Your task to perform on an android device: set default search engine in the chrome app Image 0: 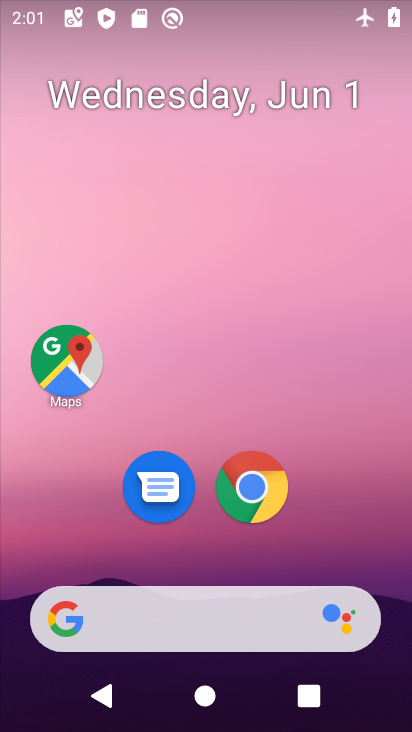
Step 0: drag from (353, 547) to (375, 116)
Your task to perform on an android device: set default search engine in the chrome app Image 1: 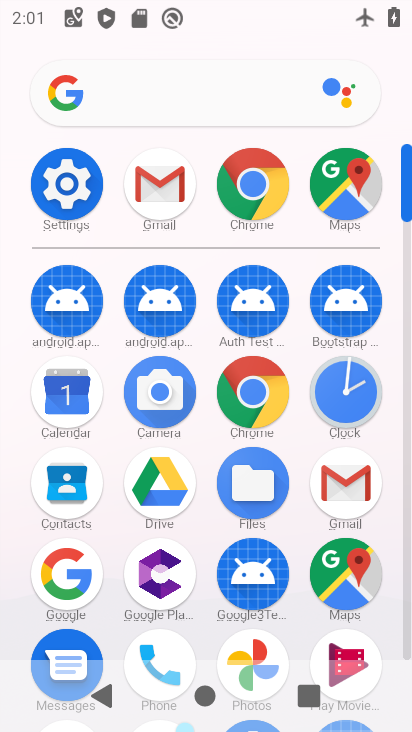
Step 1: click (264, 421)
Your task to perform on an android device: set default search engine in the chrome app Image 2: 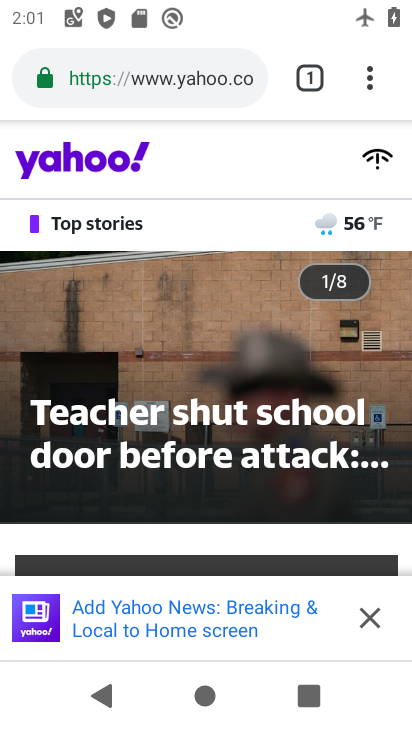
Step 2: click (370, 93)
Your task to perform on an android device: set default search engine in the chrome app Image 3: 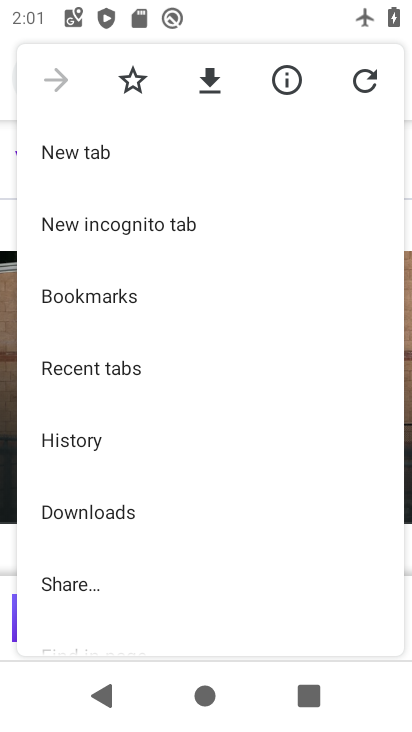
Step 3: drag from (208, 466) to (228, 301)
Your task to perform on an android device: set default search engine in the chrome app Image 4: 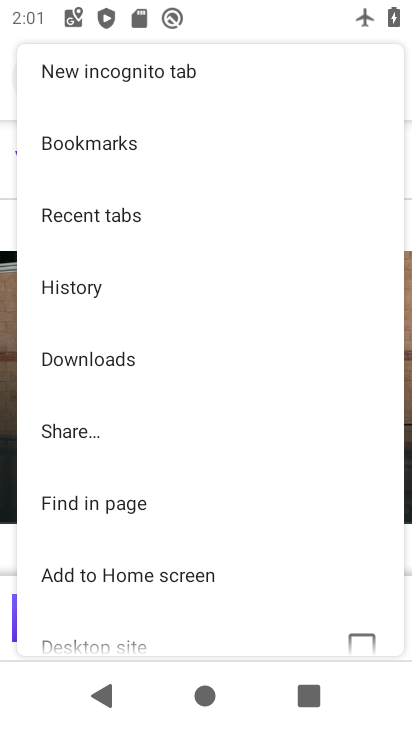
Step 4: drag from (186, 469) to (203, 357)
Your task to perform on an android device: set default search engine in the chrome app Image 5: 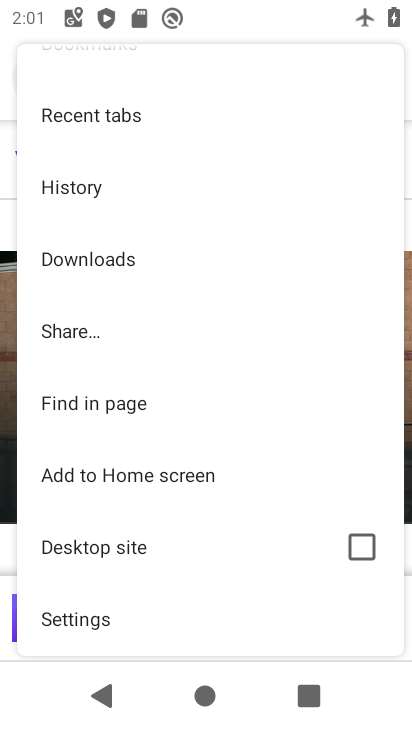
Step 5: drag from (190, 526) to (209, 381)
Your task to perform on an android device: set default search engine in the chrome app Image 6: 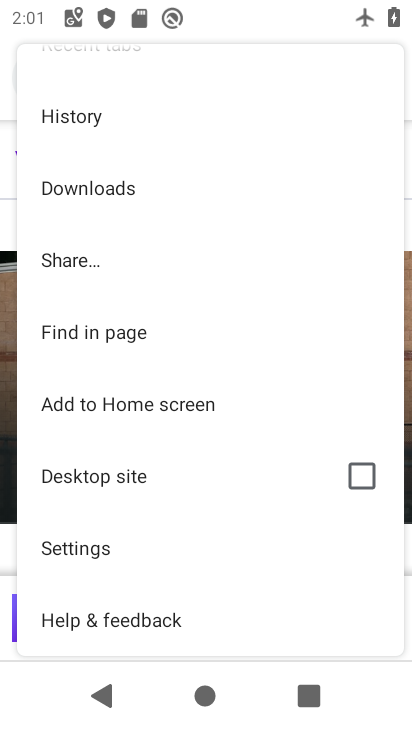
Step 6: click (152, 557)
Your task to perform on an android device: set default search engine in the chrome app Image 7: 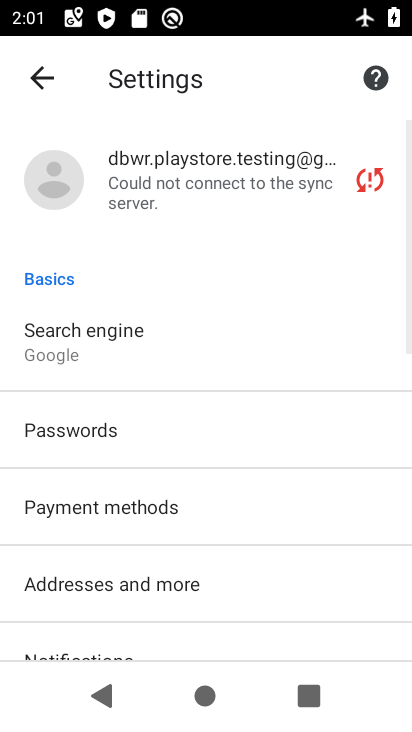
Step 7: drag from (185, 563) to (197, 475)
Your task to perform on an android device: set default search engine in the chrome app Image 8: 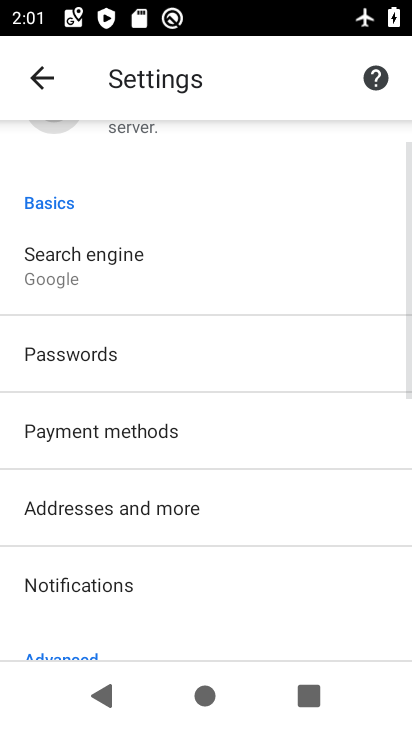
Step 8: drag from (226, 565) to (232, 415)
Your task to perform on an android device: set default search engine in the chrome app Image 9: 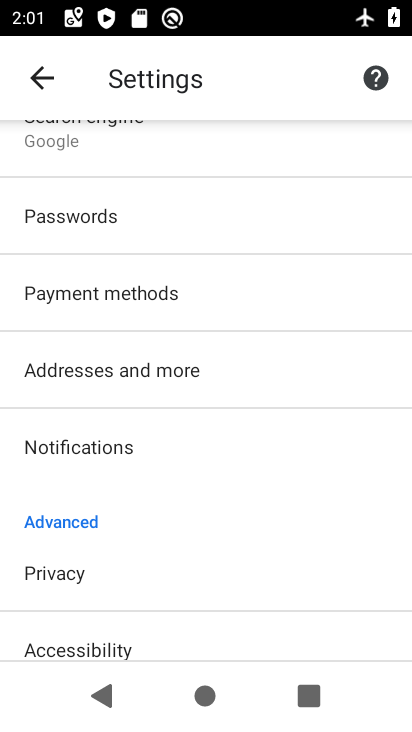
Step 9: drag from (236, 448) to (236, 354)
Your task to perform on an android device: set default search engine in the chrome app Image 10: 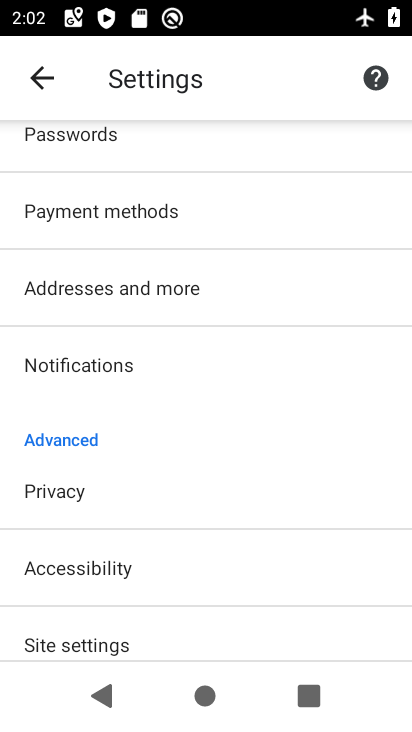
Step 10: drag from (237, 515) to (241, 365)
Your task to perform on an android device: set default search engine in the chrome app Image 11: 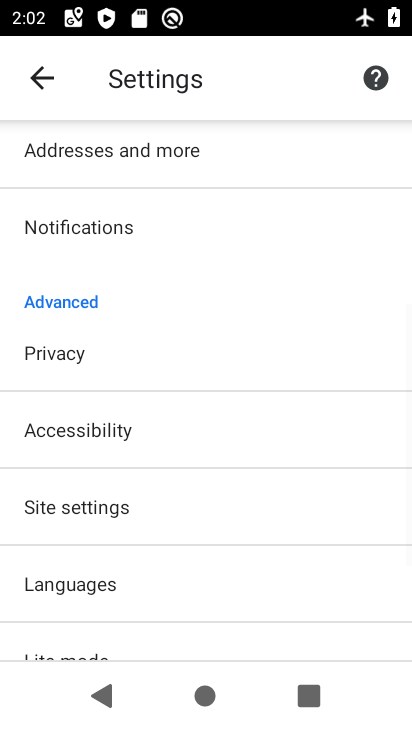
Step 11: drag from (234, 524) to (241, 399)
Your task to perform on an android device: set default search engine in the chrome app Image 12: 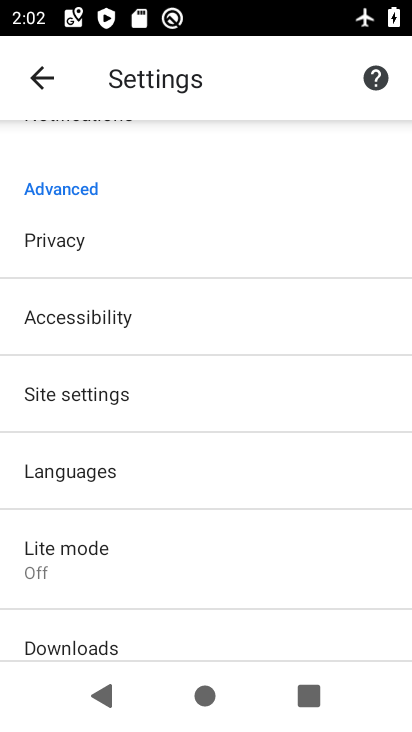
Step 12: drag from (229, 542) to (228, 415)
Your task to perform on an android device: set default search engine in the chrome app Image 13: 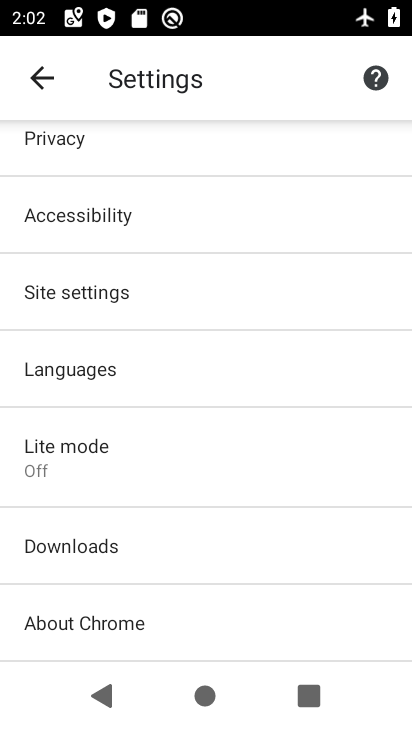
Step 13: drag from (240, 545) to (244, 375)
Your task to perform on an android device: set default search engine in the chrome app Image 14: 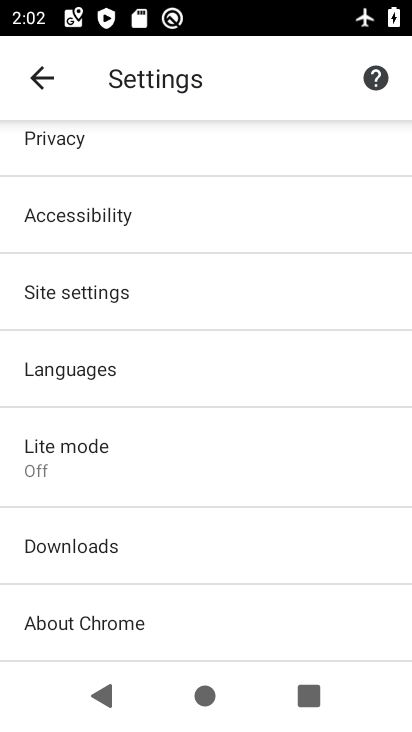
Step 14: drag from (242, 251) to (242, 431)
Your task to perform on an android device: set default search engine in the chrome app Image 15: 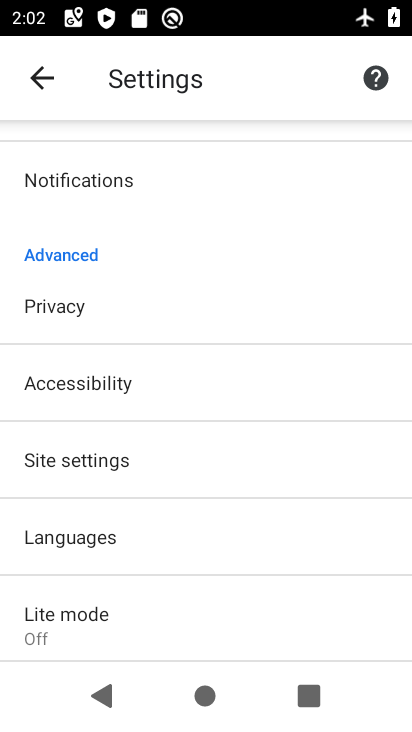
Step 15: drag from (243, 279) to (246, 390)
Your task to perform on an android device: set default search engine in the chrome app Image 16: 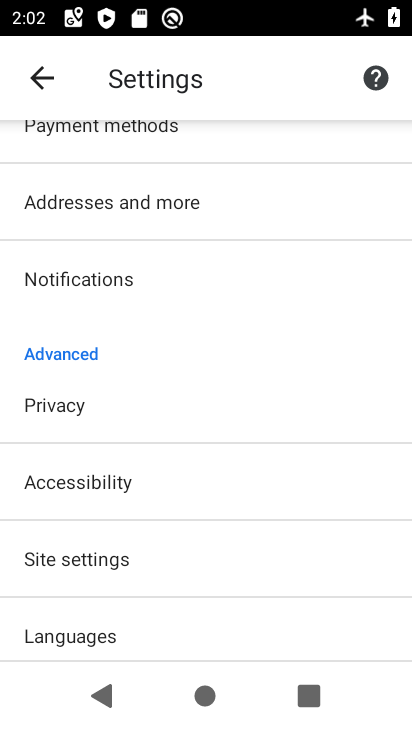
Step 16: drag from (245, 297) to (248, 382)
Your task to perform on an android device: set default search engine in the chrome app Image 17: 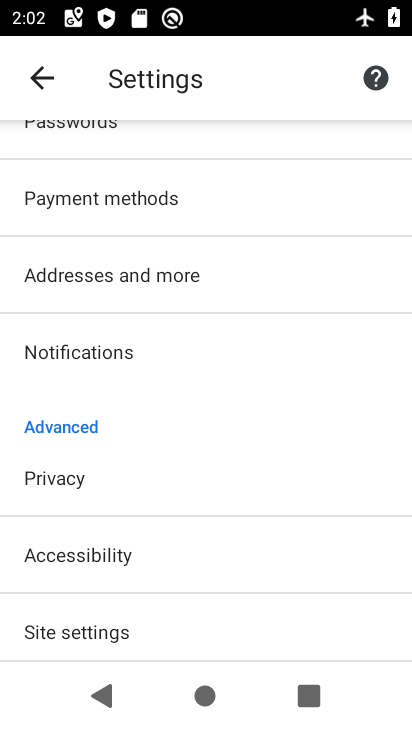
Step 17: drag from (259, 301) to (263, 384)
Your task to perform on an android device: set default search engine in the chrome app Image 18: 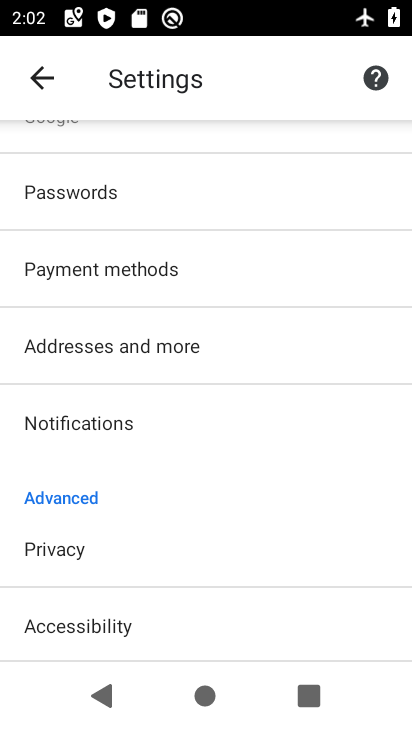
Step 18: click (266, 286)
Your task to perform on an android device: set default search engine in the chrome app Image 19: 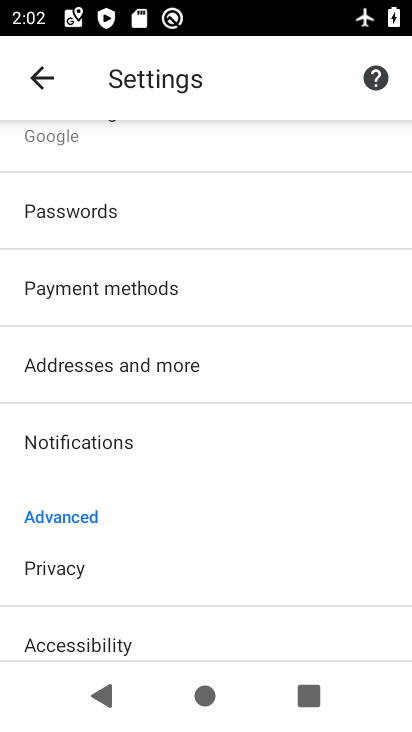
Step 19: drag from (266, 299) to (265, 361)
Your task to perform on an android device: set default search engine in the chrome app Image 20: 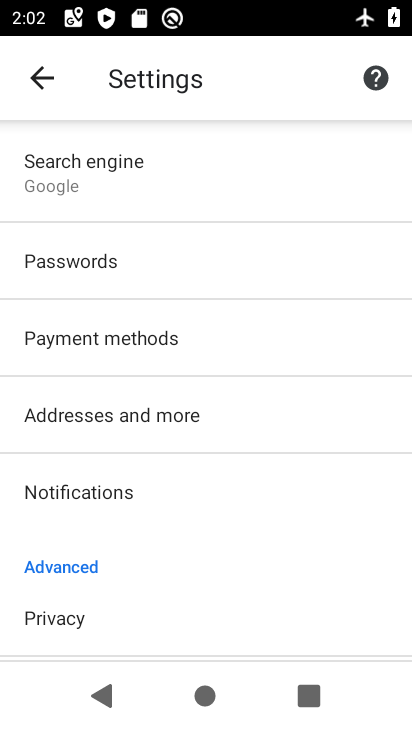
Step 20: drag from (259, 286) to (254, 399)
Your task to perform on an android device: set default search engine in the chrome app Image 21: 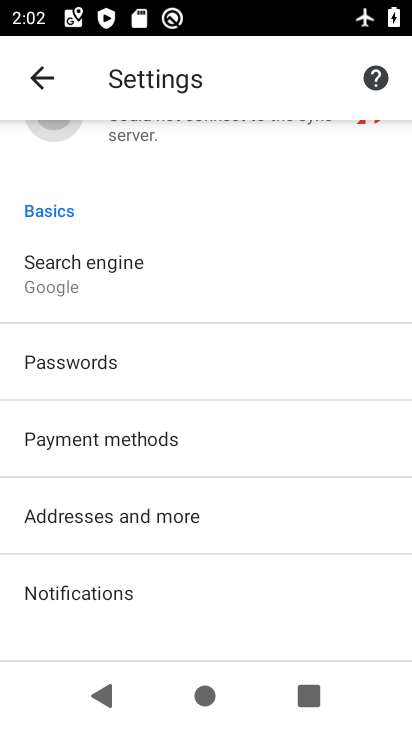
Step 21: click (117, 298)
Your task to perform on an android device: set default search engine in the chrome app Image 22: 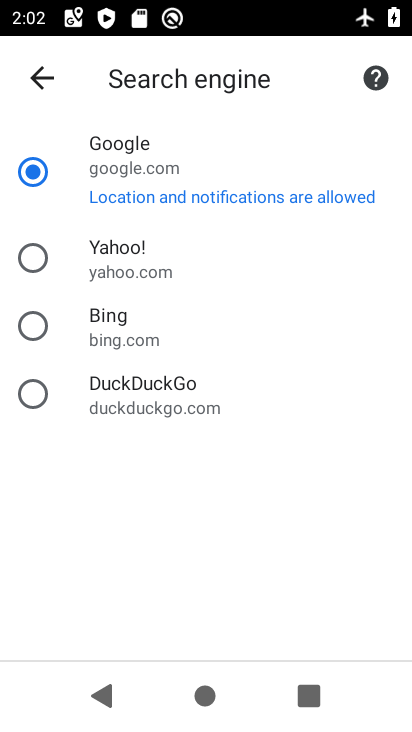
Step 22: click (129, 322)
Your task to perform on an android device: set default search engine in the chrome app Image 23: 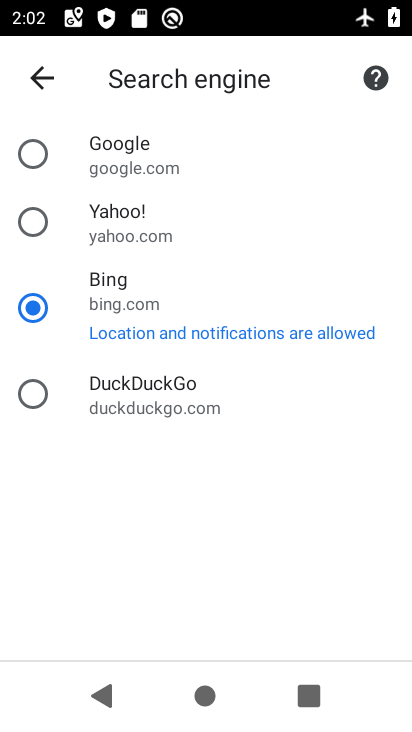
Step 23: task complete